Your task to perform on an android device: turn on wifi Image 0: 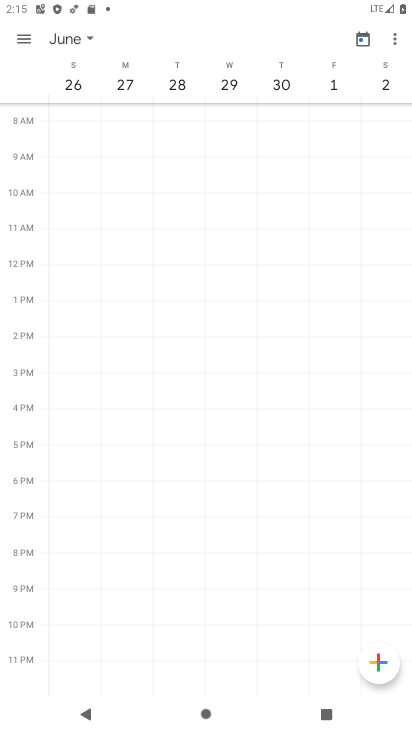
Step 0: press back button
Your task to perform on an android device: turn on wifi Image 1: 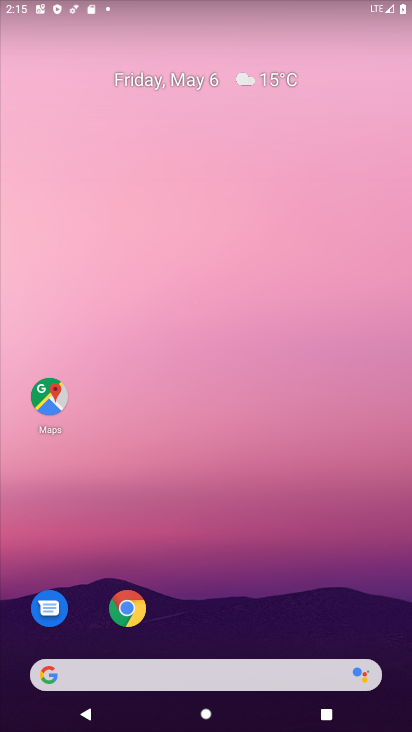
Step 1: drag from (212, 523) to (177, 25)
Your task to perform on an android device: turn on wifi Image 2: 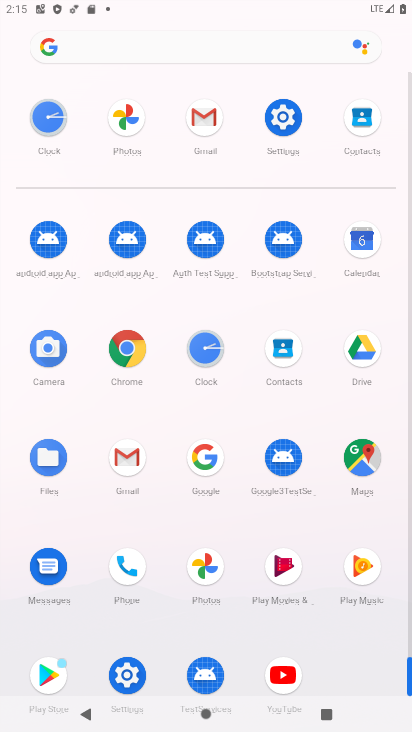
Step 2: click (283, 116)
Your task to perform on an android device: turn on wifi Image 3: 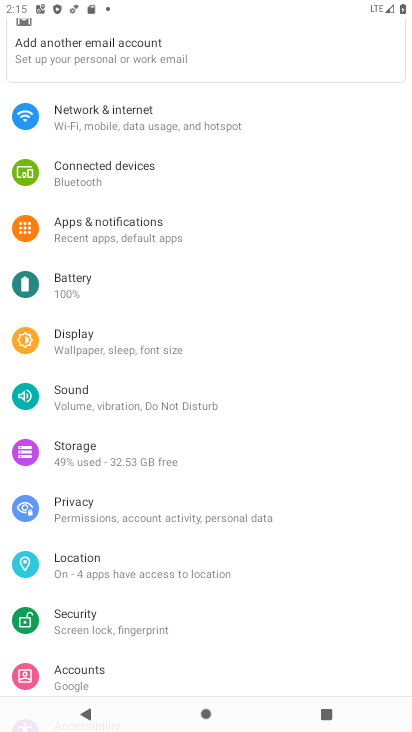
Step 3: drag from (164, 422) to (179, 348)
Your task to perform on an android device: turn on wifi Image 4: 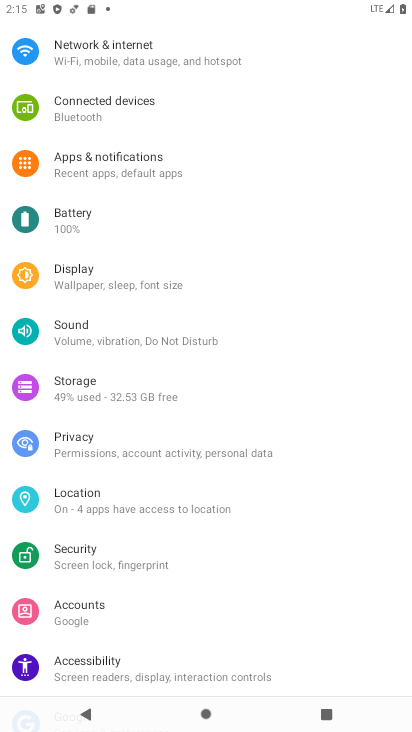
Step 4: drag from (179, 348) to (221, 424)
Your task to perform on an android device: turn on wifi Image 5: 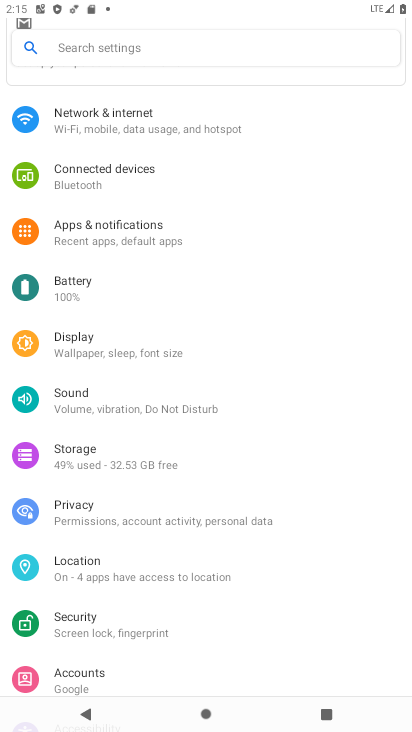
Step 5: drag from (171, 258) to (211, 369)
Your task to perform on an android device: turn on wifi Image 6: 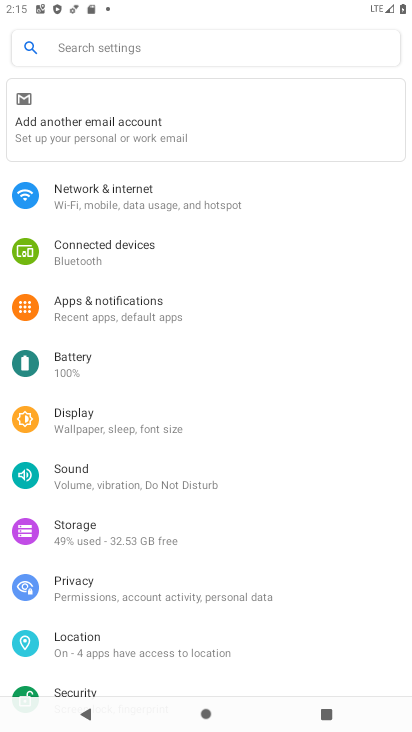
Step 6: drag from (157, 435) to (167, 276)
Your task to perform on an android device: turn on wifi Image 7: 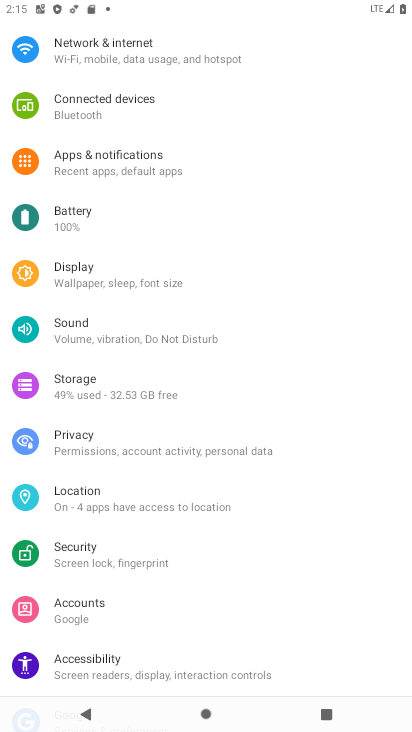
Step 7: drag from (118, 432) to (157, 334)
Your task to perform on an android device: turn on wifi Image 8: 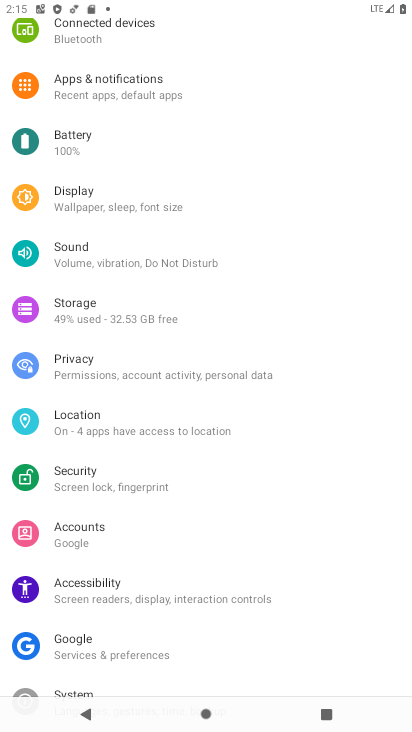
Step 8: drag from (157, 334) to (224, 496)
Your task to perform on an android device: turn on wifi Image 9: 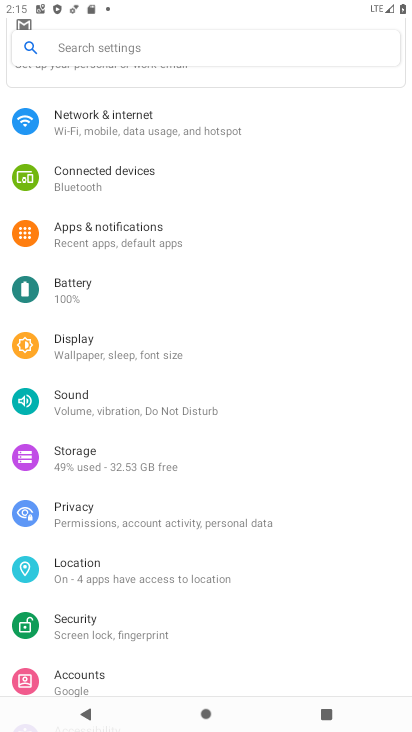
Step 9: click (105, 133)
Your task to perform on an android device: turn on wifi Image 10: 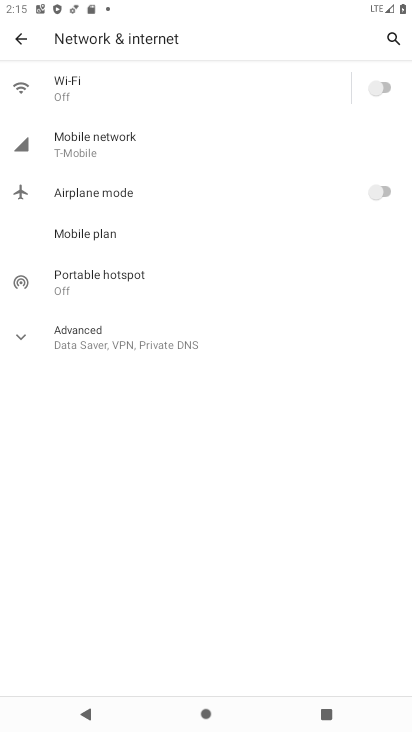
Step 10: click (380, 82)
Your task to perform on an android device: turn on wifi Image 11: 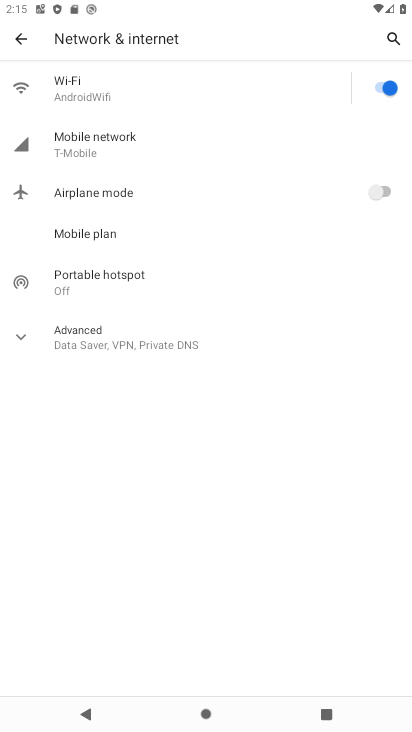
Step 11: task complete